Your task to perform on an android device: turn on showing notifications on the lock screen Image 0: 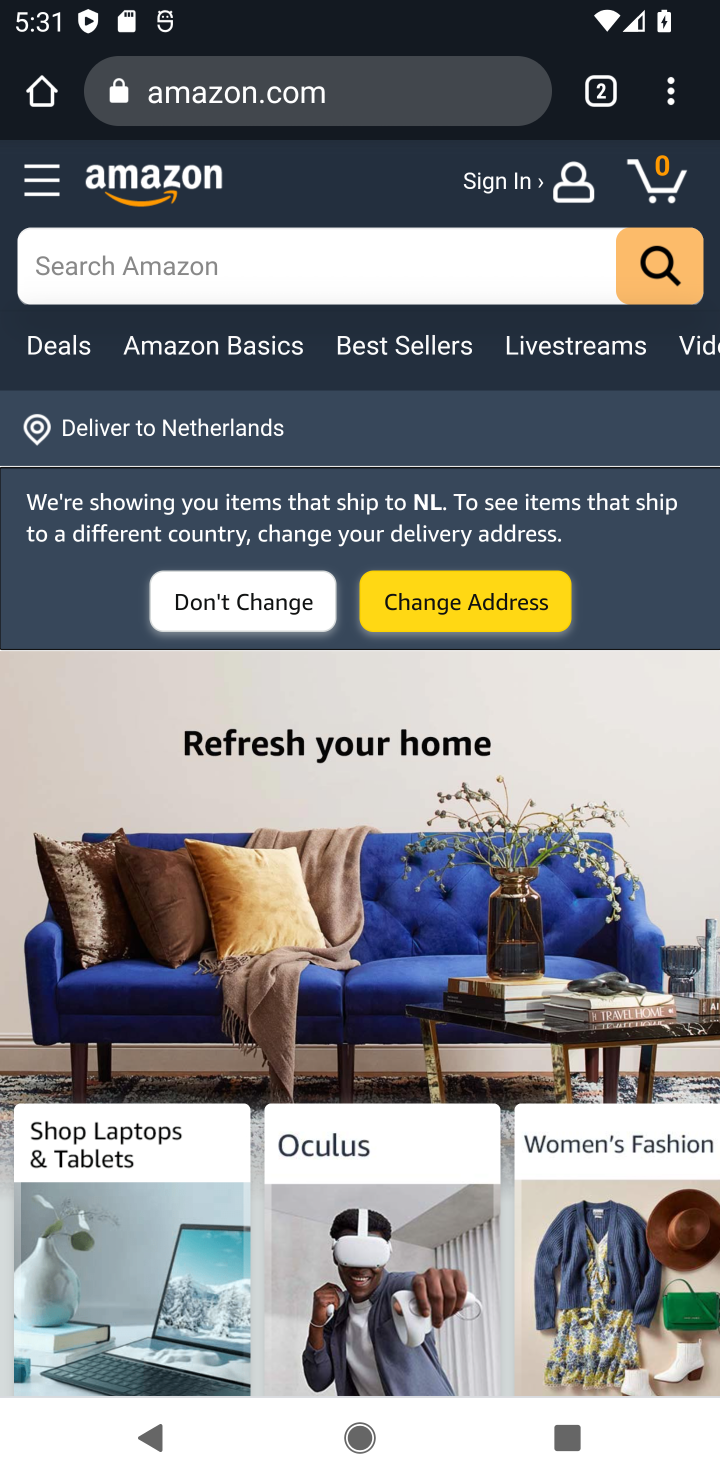
Step 0: press home button
Your task to perform on an android device: turn on showing notifications on the lock screen Image 1: 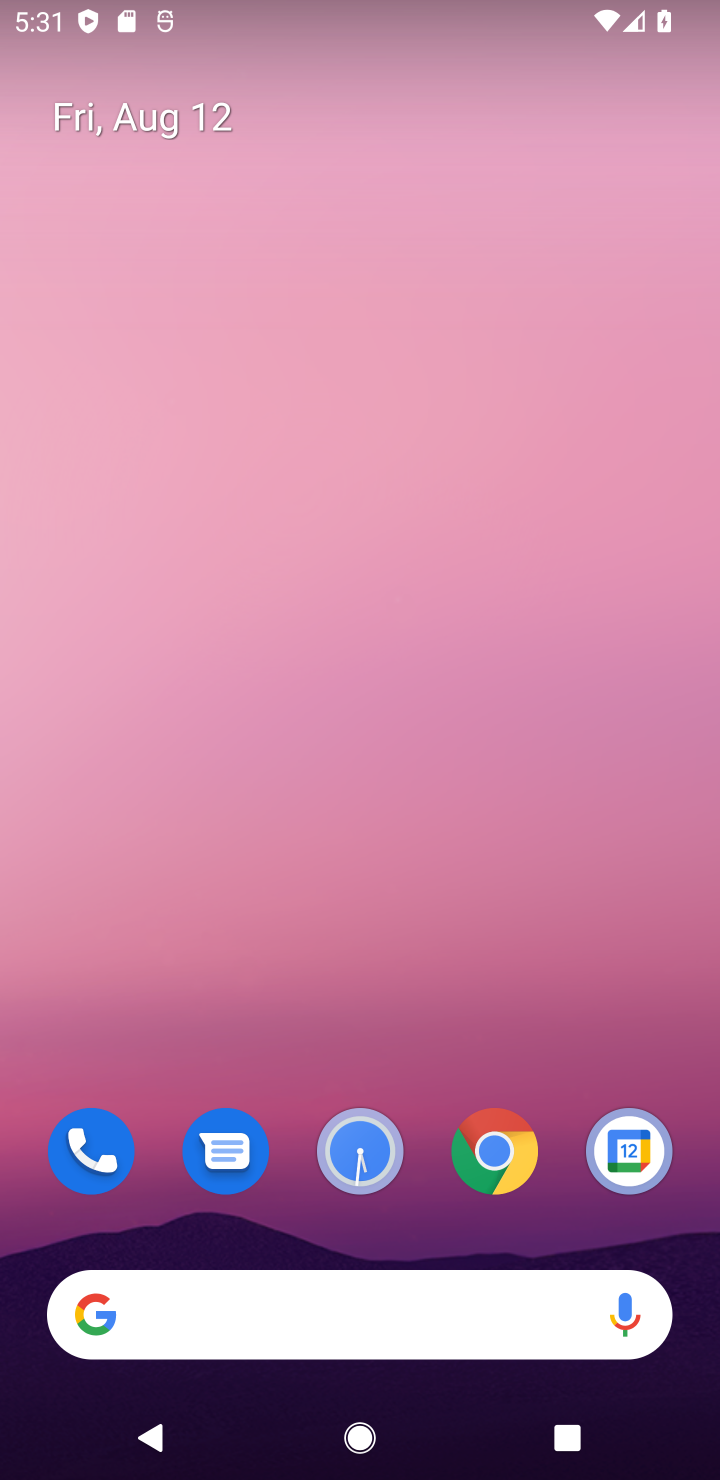
Step 1: drag from (442, 1067) to (494, 152)
Your task to perform on an android device: turn on showing notifications on the lock screen Image 2: 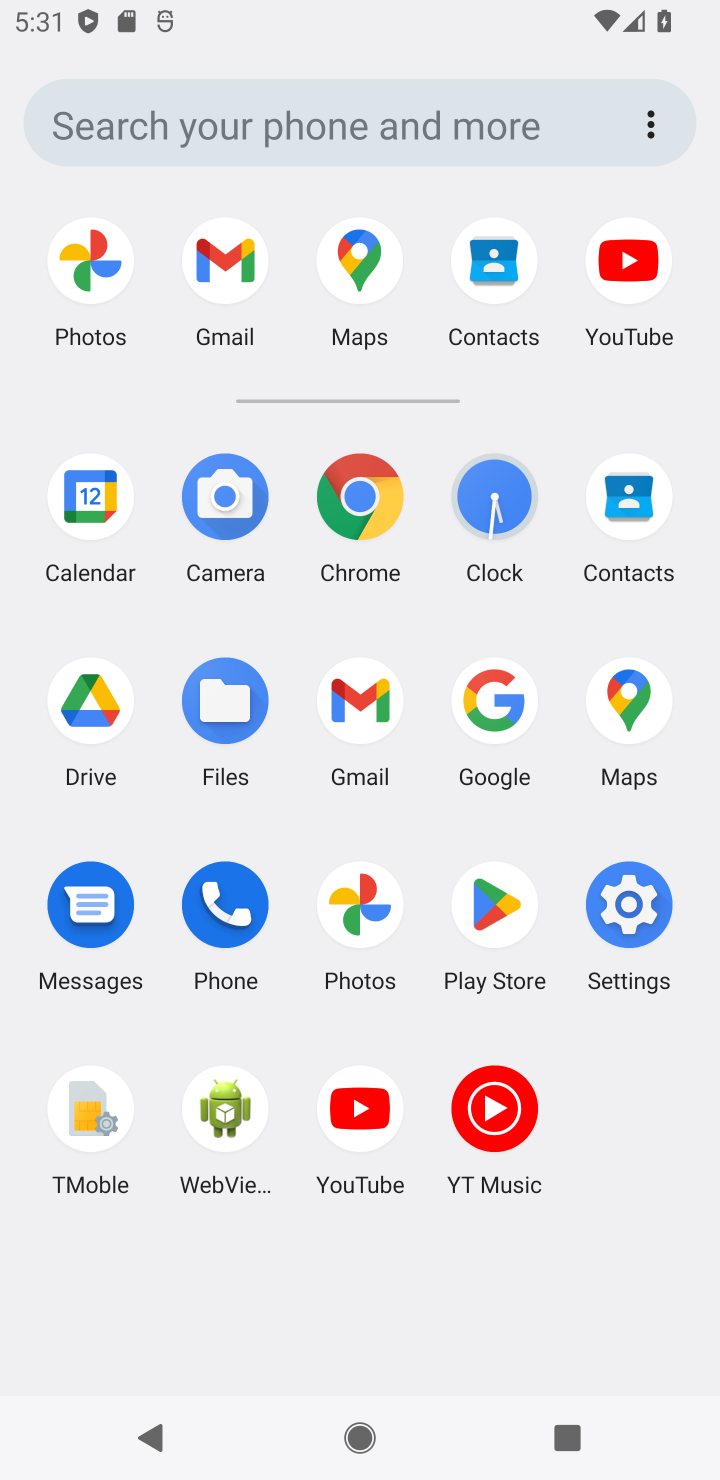
Step 2: click (619, 895)
Your task to perform on an android device: turn on showing notifications on the lock screen Image 3: 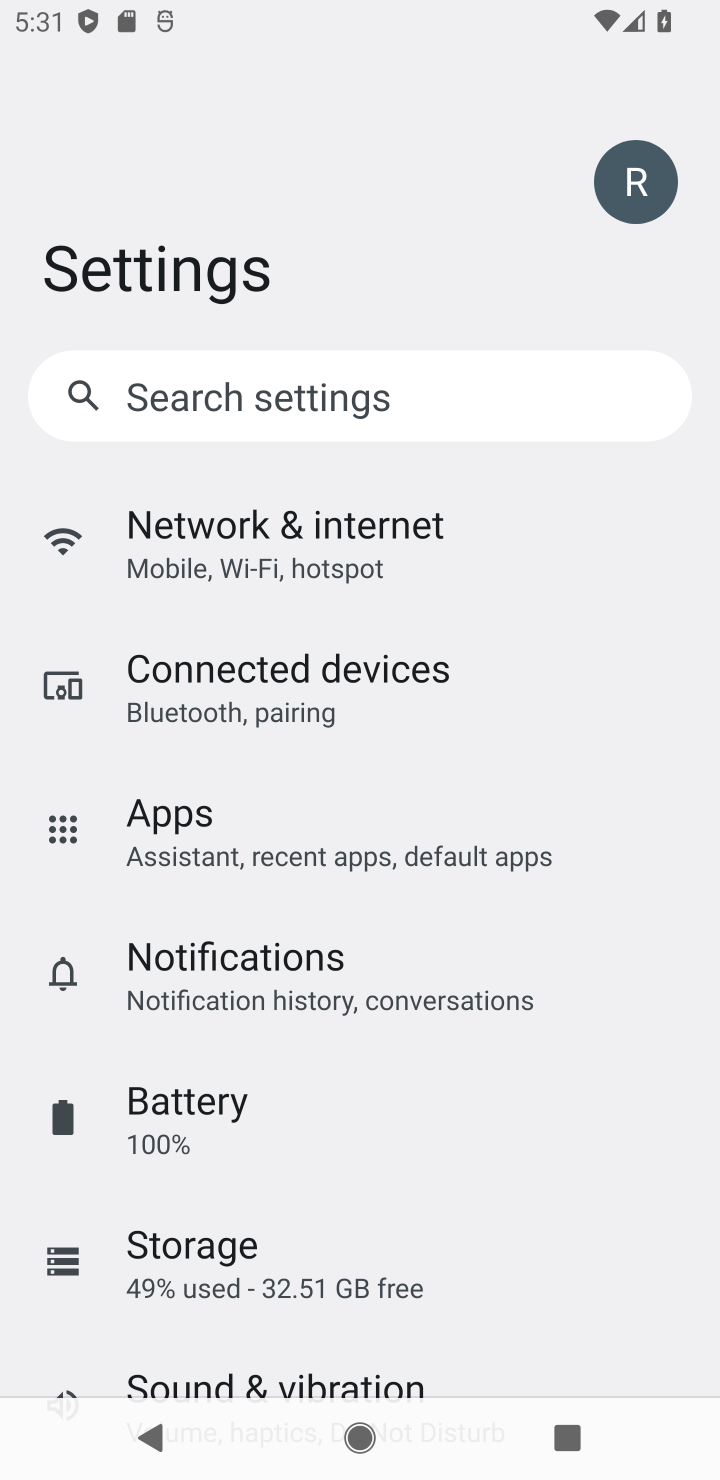
Step 3: click (299, 989)
Your task to perform on an android device: turn on showing notifications on the lock screen Image 4: 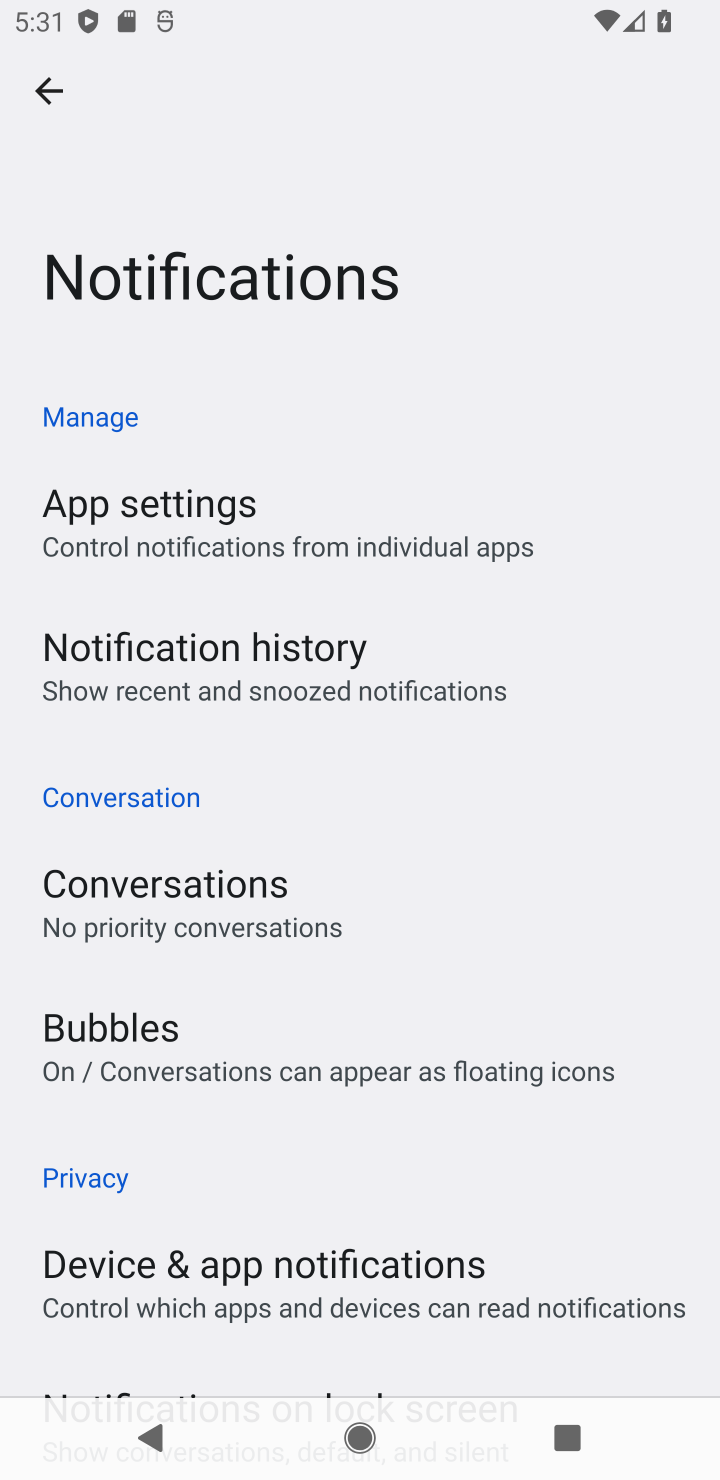
Step 4: drag from (442, 1157) to (469, 741)
Your task to perform on an android device: turn on showing notifications on the lock screen Image 5: 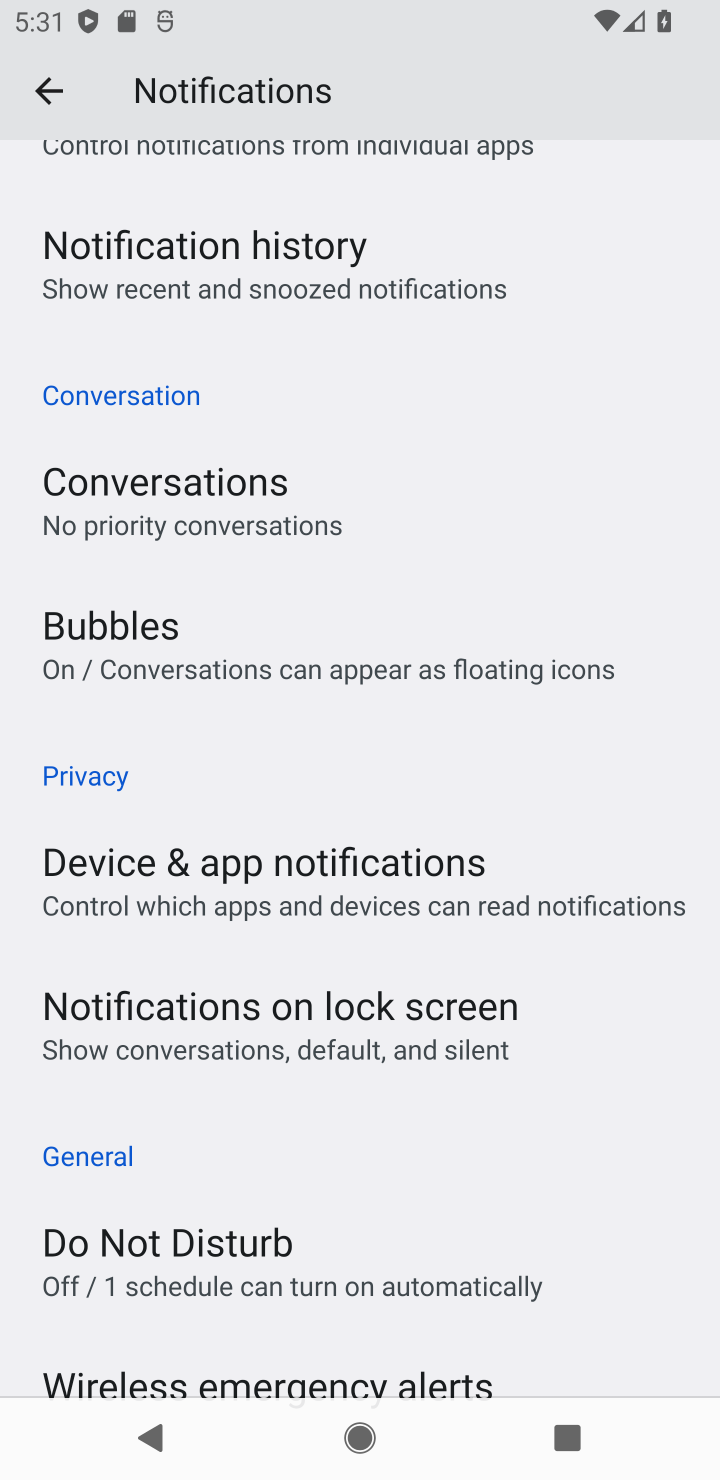
Step 5: click (430, 998)
Your task to perform on an android device: turn on showing notifications on the lock screen Image 6: 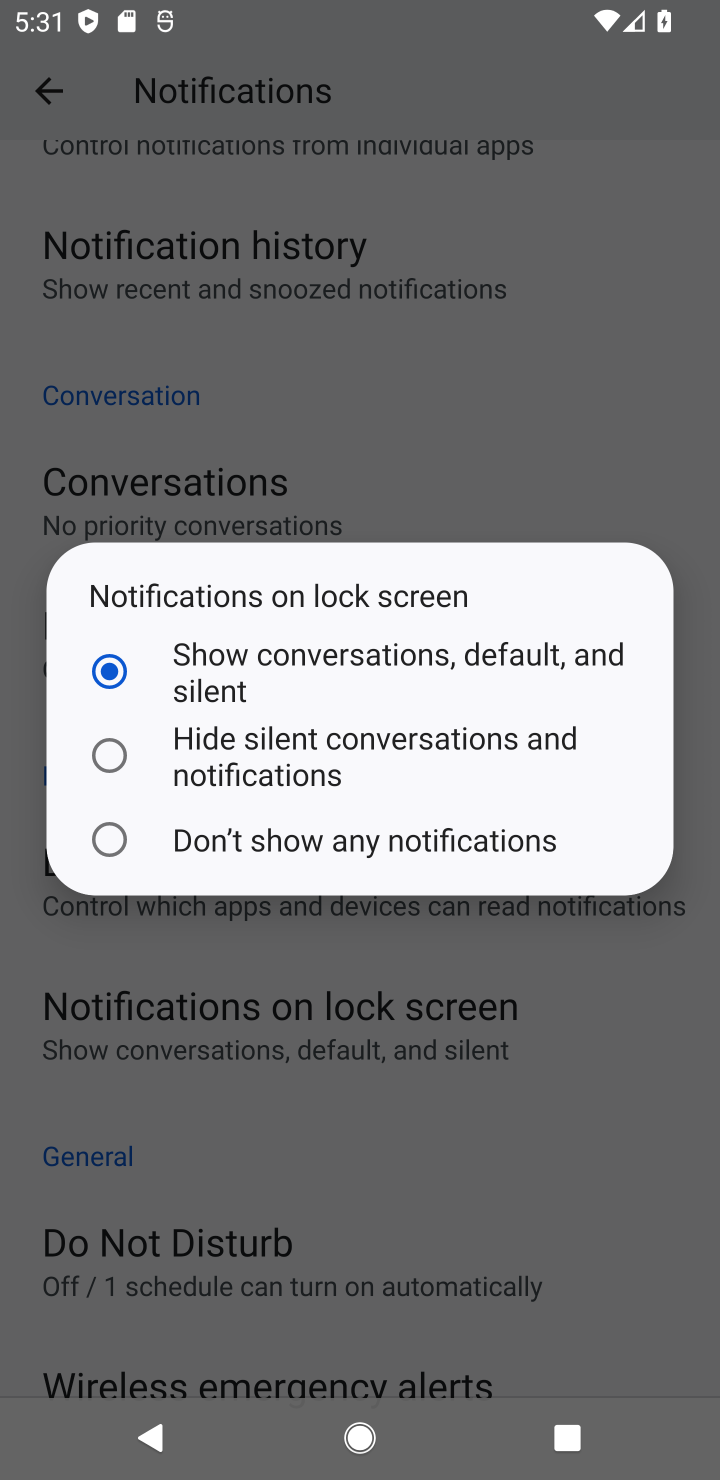
Step 6: task complete